Your task to perform on an android device: What time is it? Image 0: 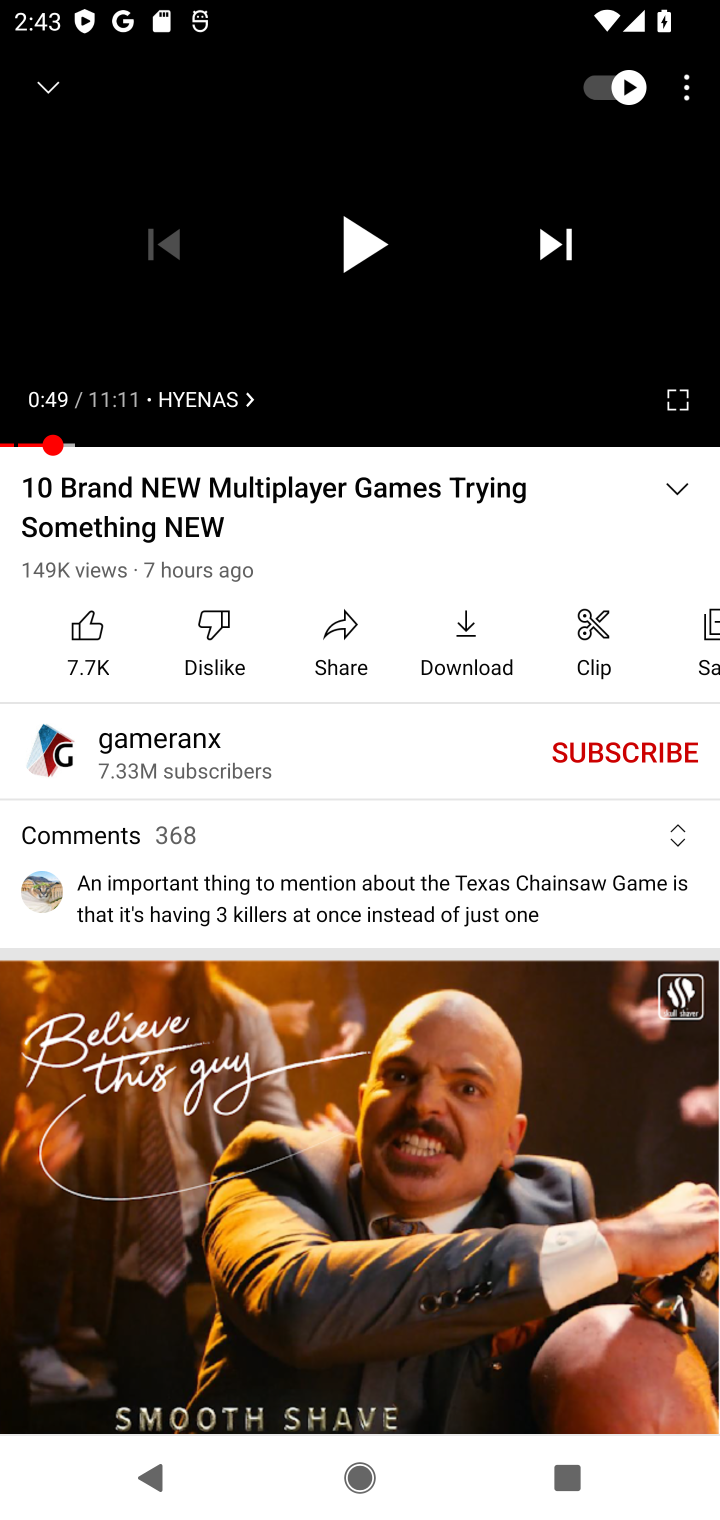
Step 0: press home button
Your task to perform on an android device: What time is it? Image 1: 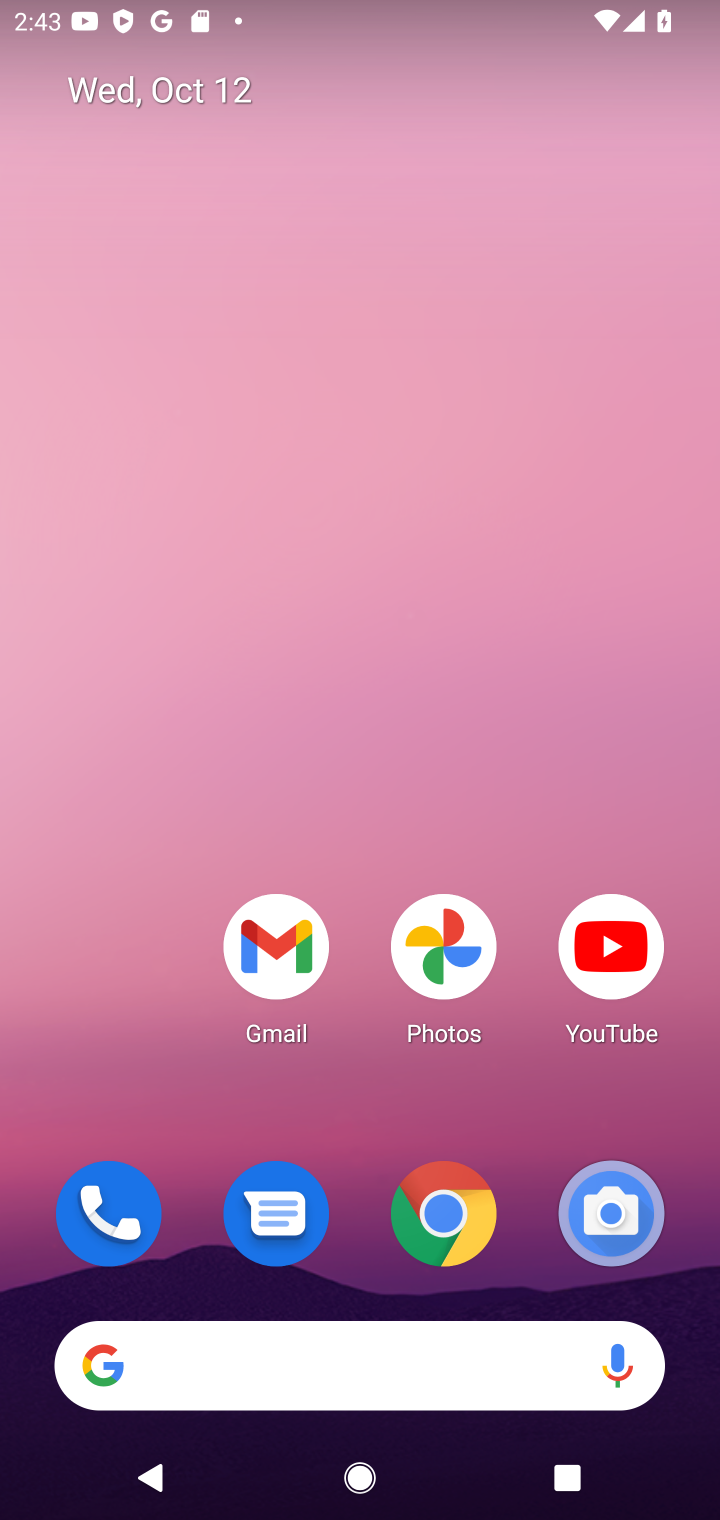
Step 1: click (227, 1354)
Your task to perform on an android device: What time is it? Image 2: 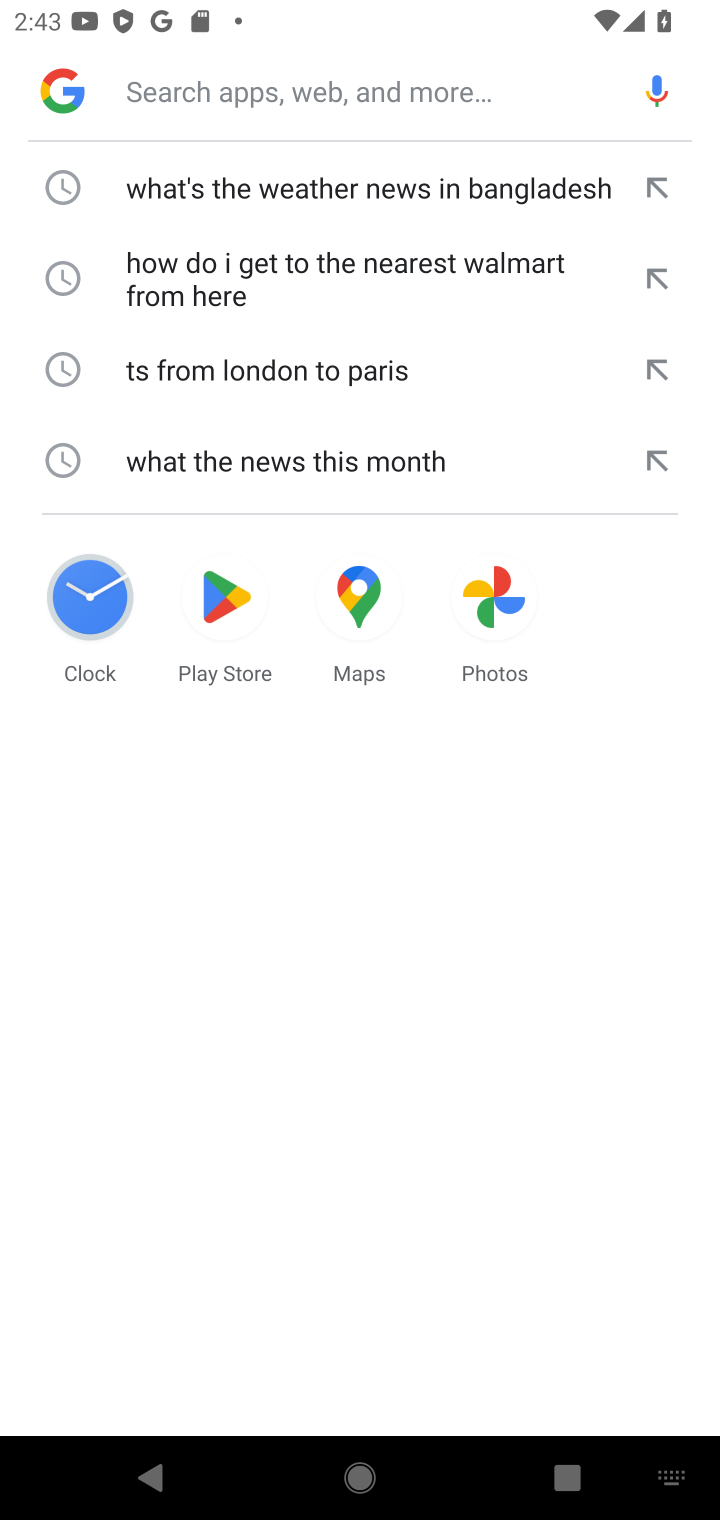
Step 2: type "What time is it?"
Your task to perform on an android device: What time is it? Image 3: 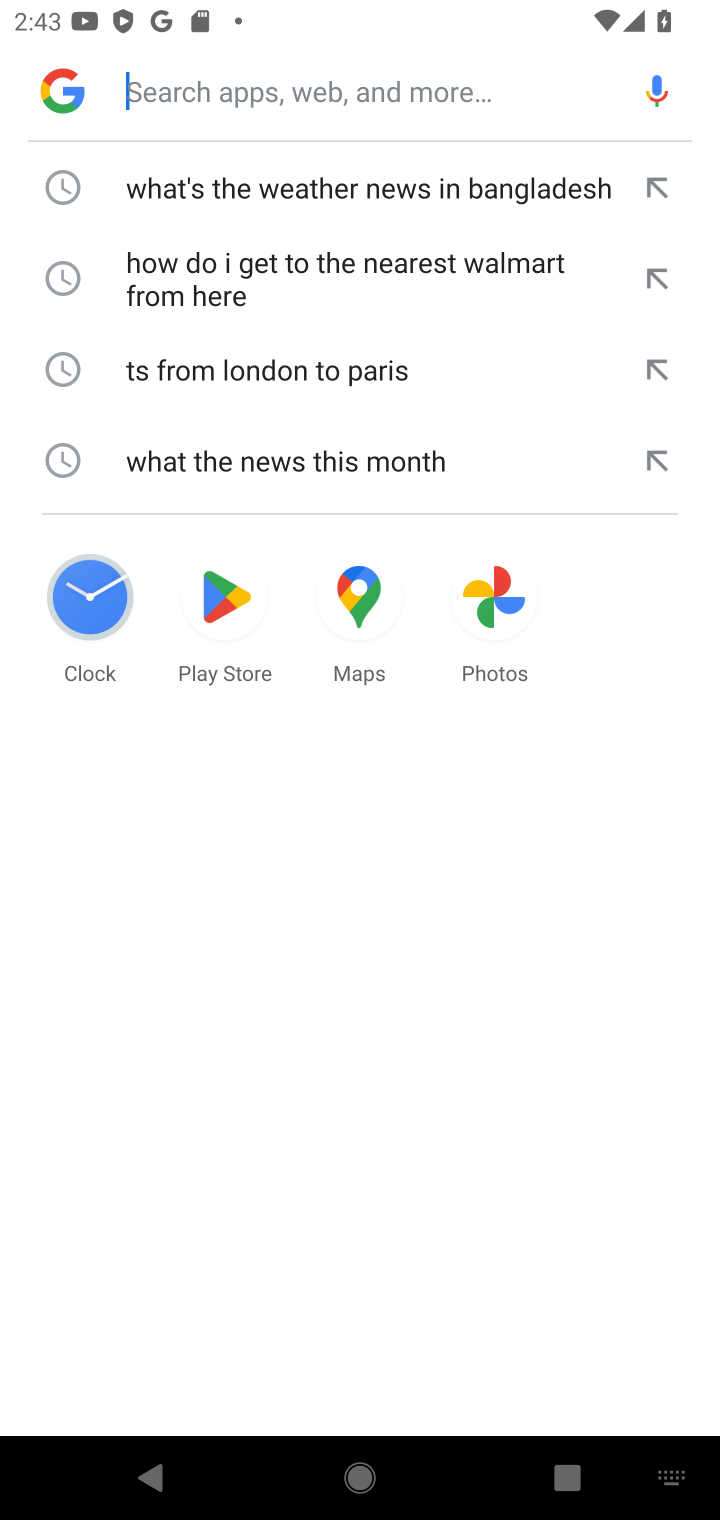
Step 3: click (208, 1126)
Your task to perform on an android device: What time is it? Image 4: 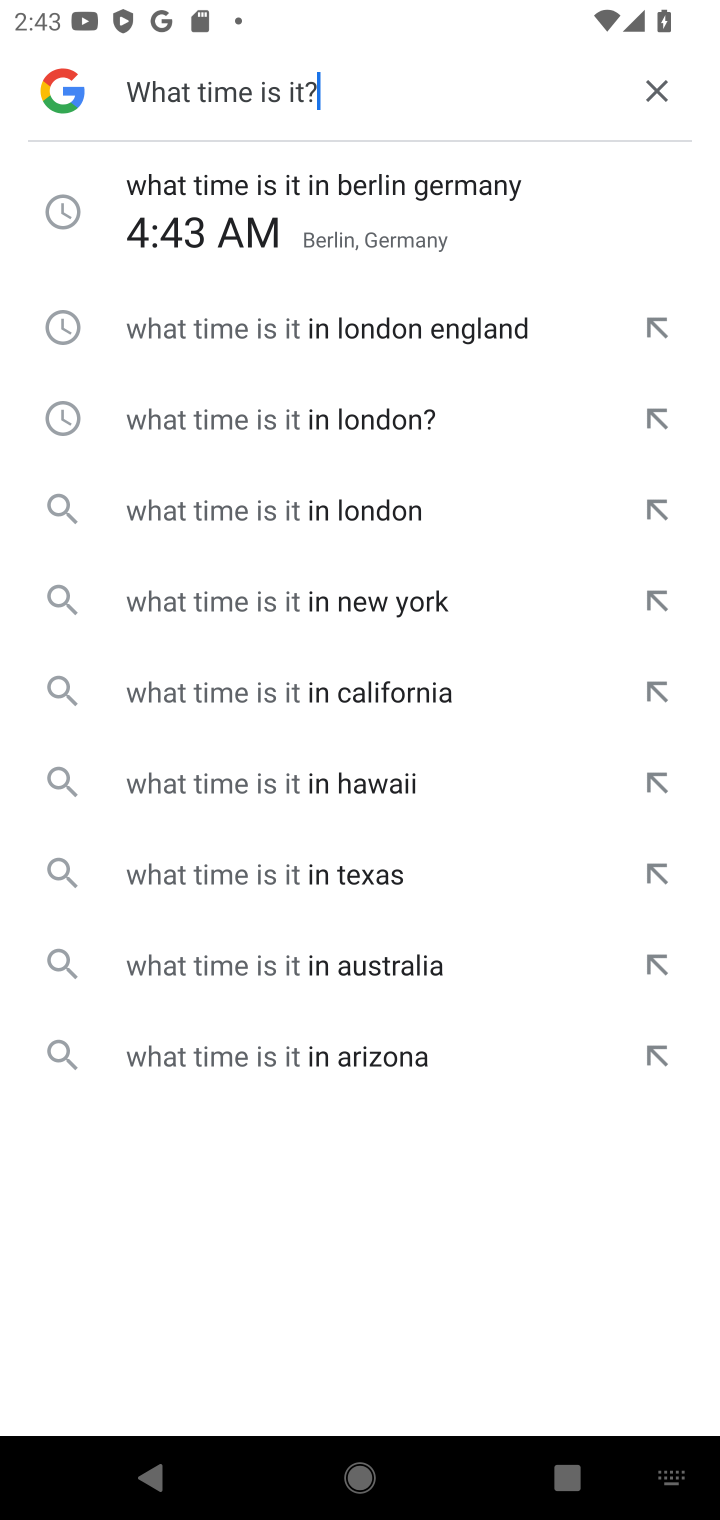
Step 4: click (260, 204)
Your task to perform on an android device: What time is it? Image 5: 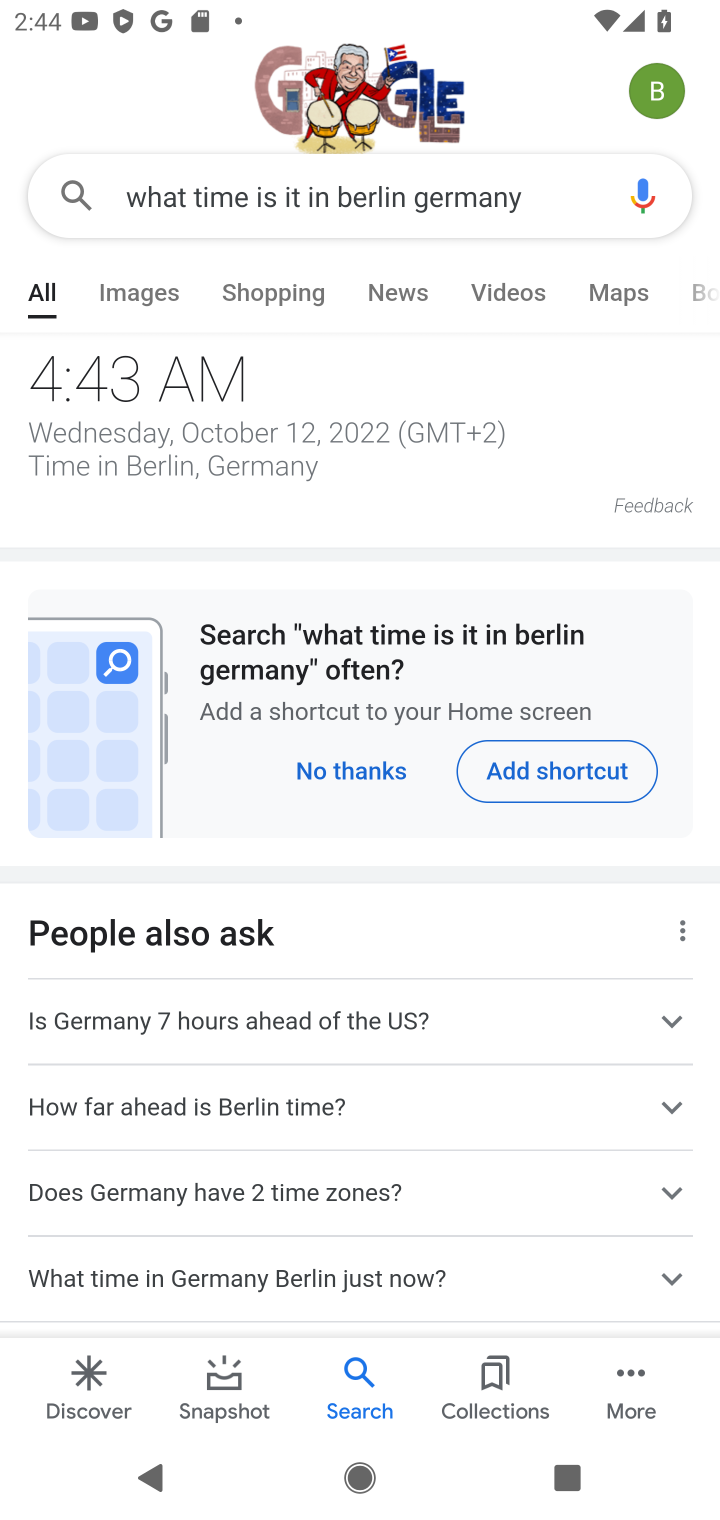
Step 5: task complete